Your task to perform on an android device: create a new album in the google photos Image 0: 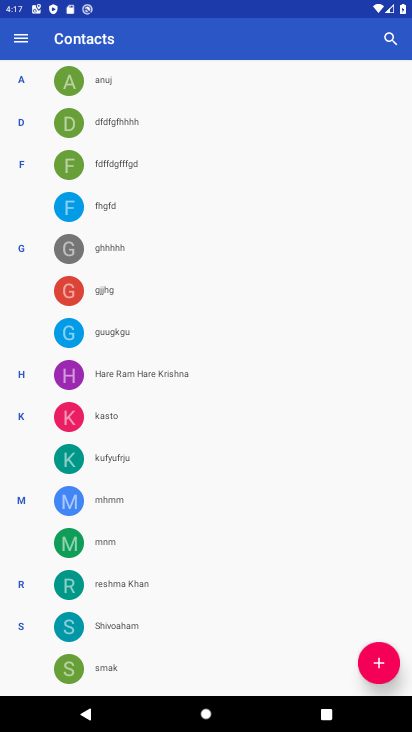
Step 0: press home button
Your task to perform on an android device: create a new album in the google photos Image 1: 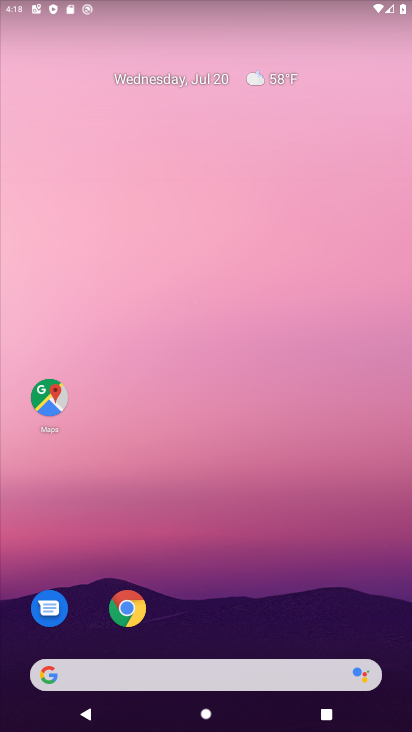
Step 1: drag from (250, 635) to (59, 0)
Your task to perform on an android device: create a new album in the google photos Image 2: 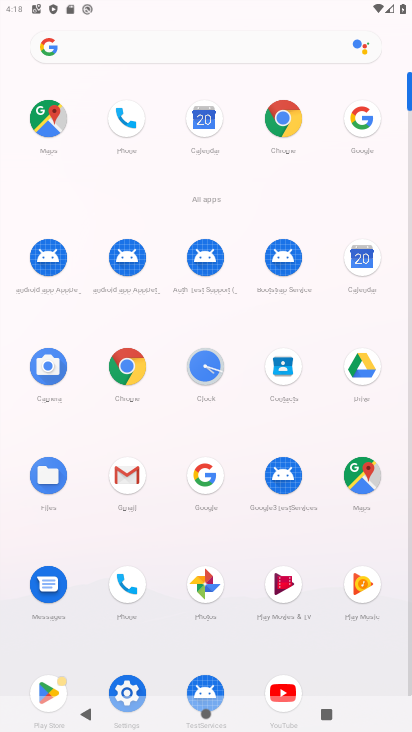
Step 2: click (196, 593)
Your task to perform on an android device: create a new album in the google photos Image 3: 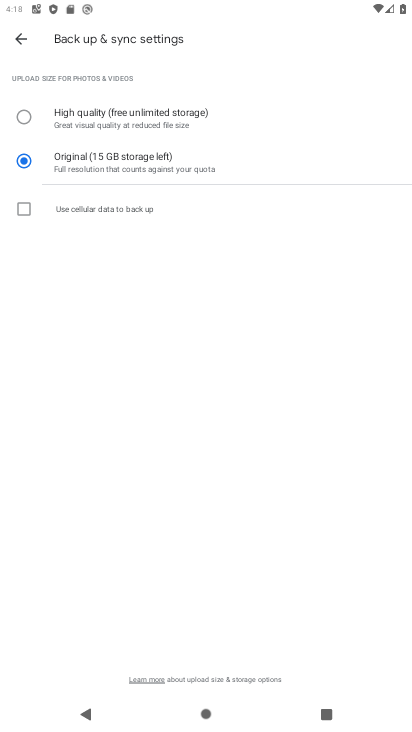
Step 3: click (20, 46)
Your task to perform on an android device: create a new album in the google photos Image 4: 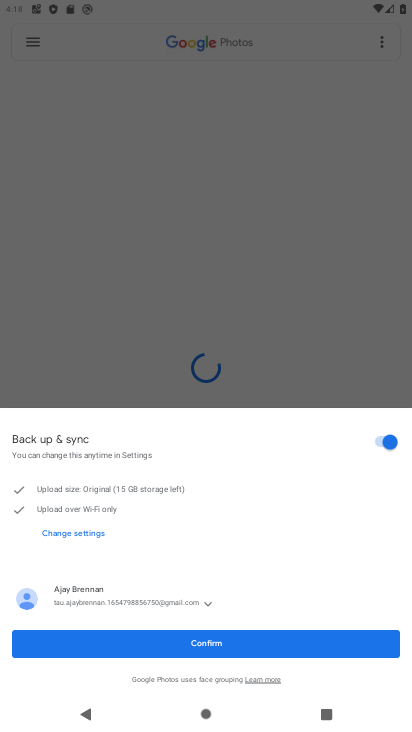
Step 4: click (250, 650)
Your task to perform on an android device: create a new album in the google photos Image 5: 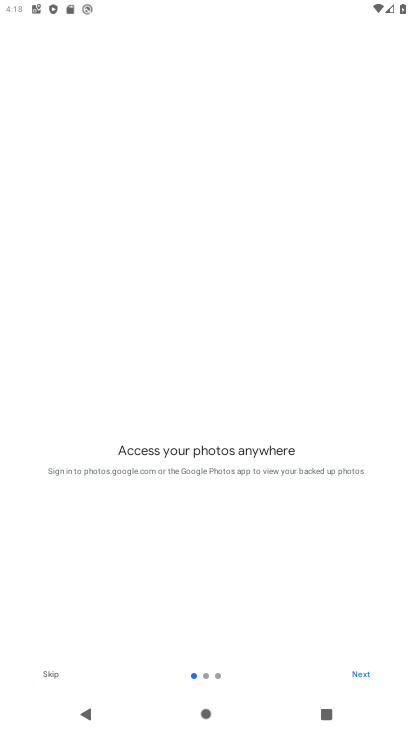
Step 5: click (356, 674)
Your task to perform on an android device: create a new album in the google photos Image 6: 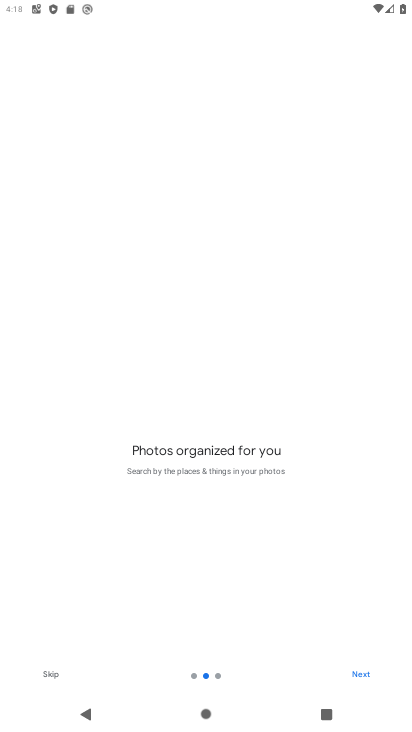
Step 6: click (356, 673)
Your task to perform on an android device: create a new album in the google photos Image 7: 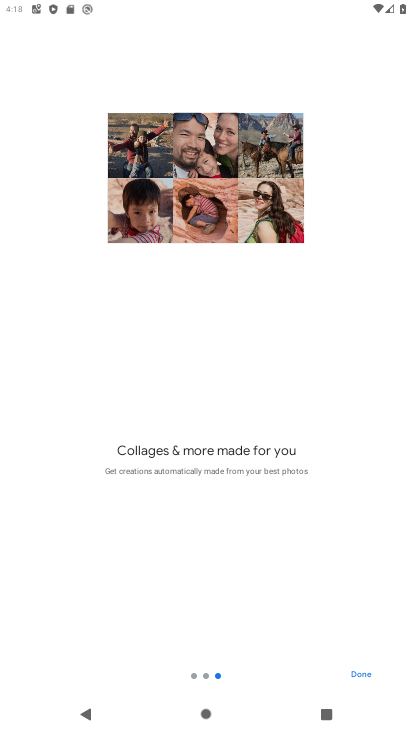
Step 7: click (356, 673)
Your task to perform on an android device: create a new album in the google photos Image 8: 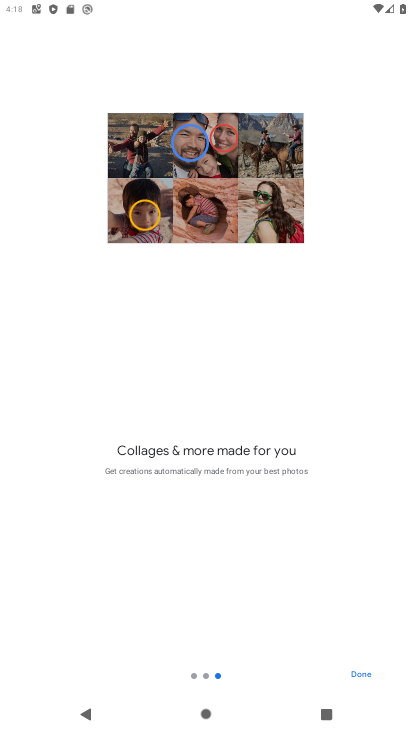
Step 8: click (356, 673)
Your task to perform on an android device: create a new album in the google photos Image 9: 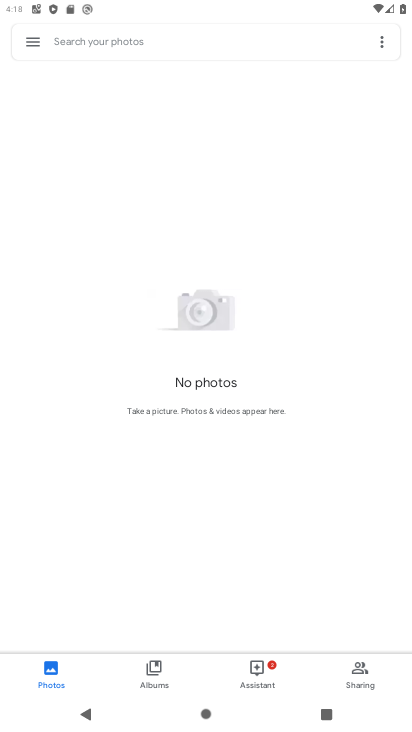
Step 9: click (160, 663)
Your task to perform on an android device: create a new album in the google photos Image 10: 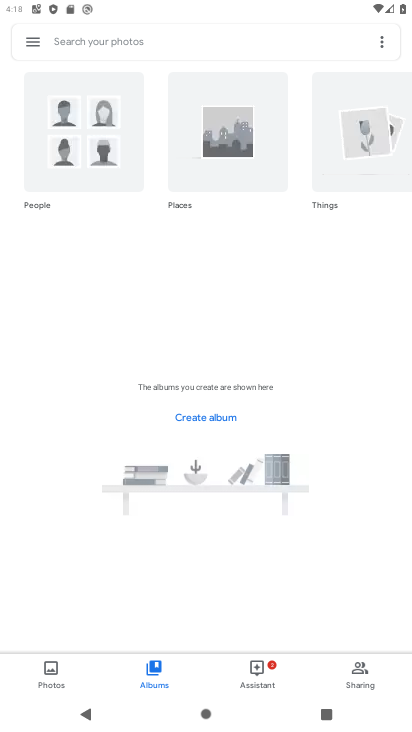
Step 10: click (198, 407)
Your task to perform on an android device: create a new album in the google photos Image 11: 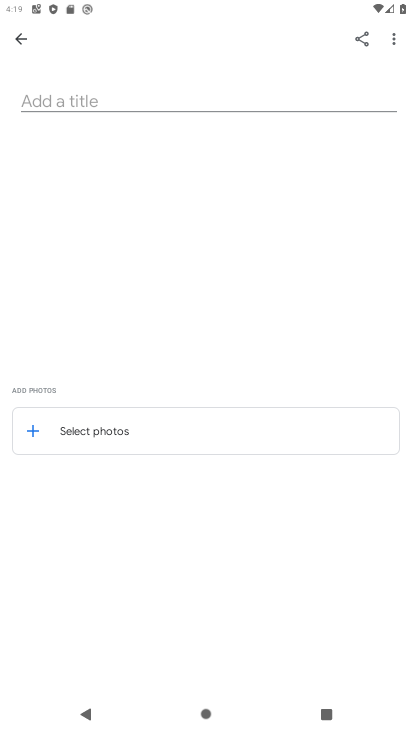
Step 11: task complete